Your task to perform on an android device: Go to battery settings Image 0: 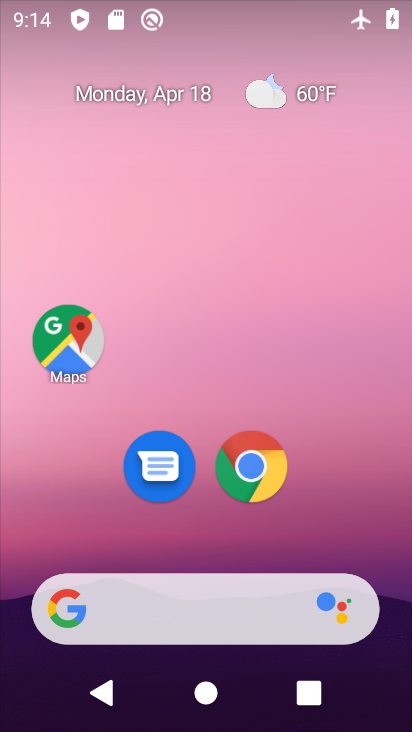
Step 0: drag from (316, 541) to (273, 4)
Your task to perform on an android device: Go to battery settings Image 1: 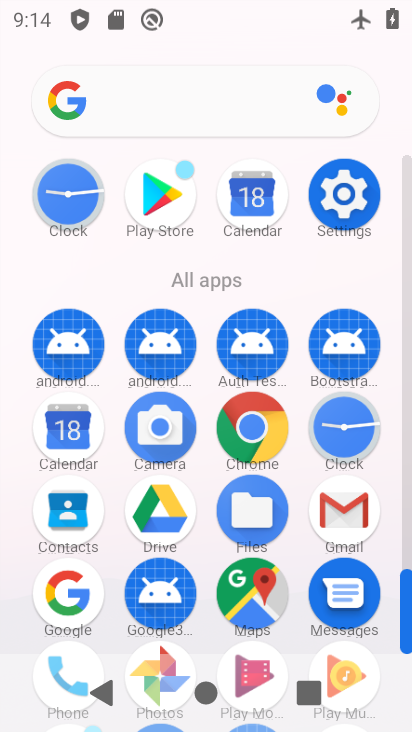
Step 1: click (343, 198)
Your task to perform on an android device: Go to battery settings Image 2: 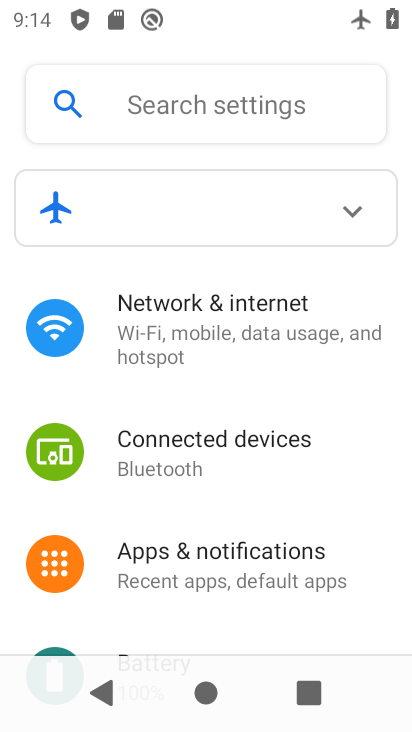
Step 2: drag from (189, 492) to (170, 194)
Your task to perform on an android device: Go to battery settings Image 3: 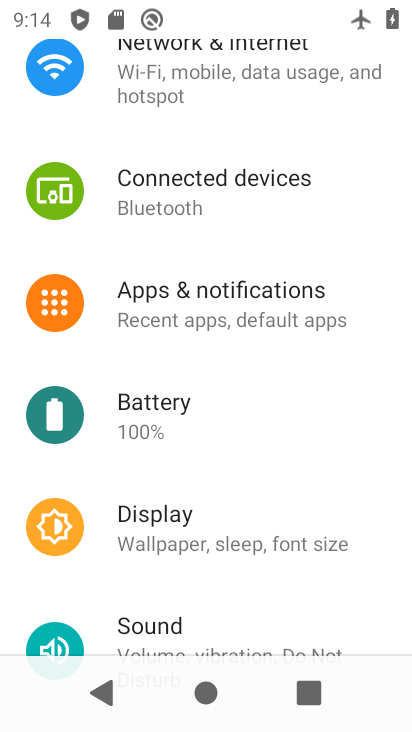
Step 3: click (136, 414)
Your task to perform on an android device: Go to battery settings Image 4: 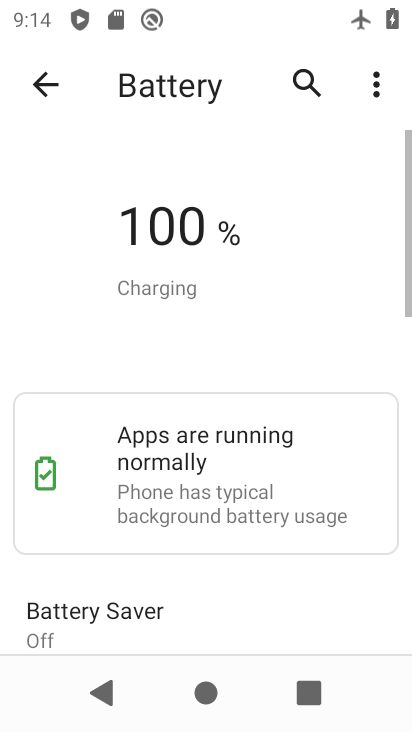
Step 4: task complete